Your task to perform on an android device: toggle javascript in the chrome app Image 0: 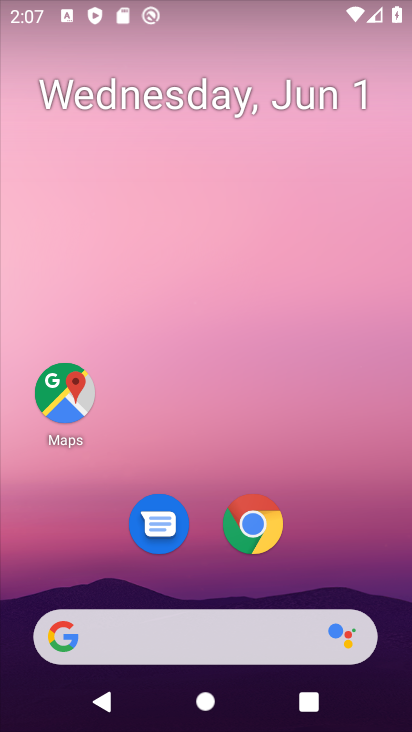
Step 0: click (265, 530)
Your task to perform on an android device: toggle javascript in the chrome app Image 1: 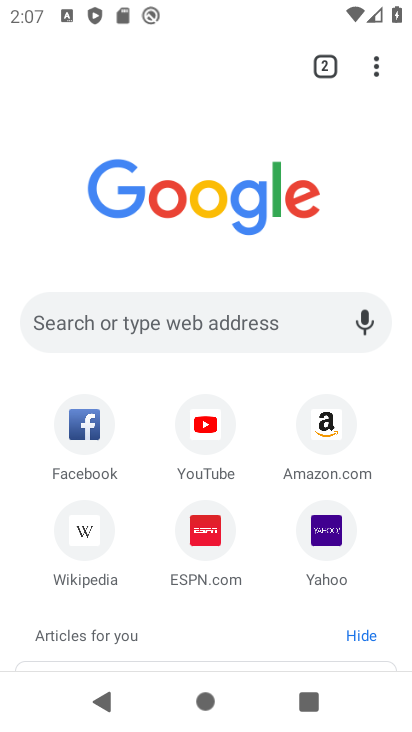
Step 1: click (368, 67)
Your task to perform on an android device: toggle javascript in the chrome app Image 2: 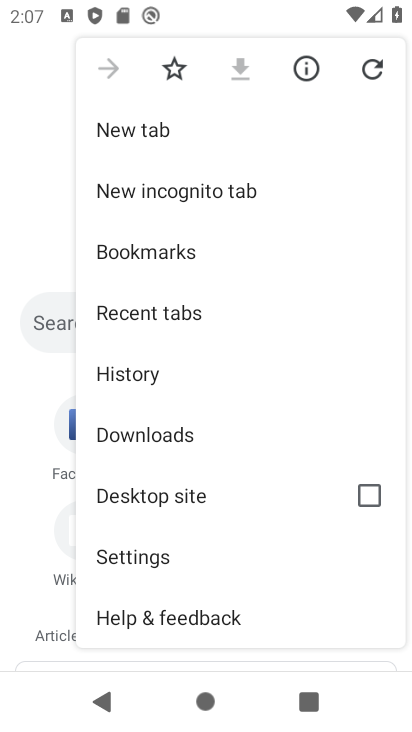
Step 2: click (203, 562)
Your task to perform on an android device: toggle javascript in the chrome app Image 3: 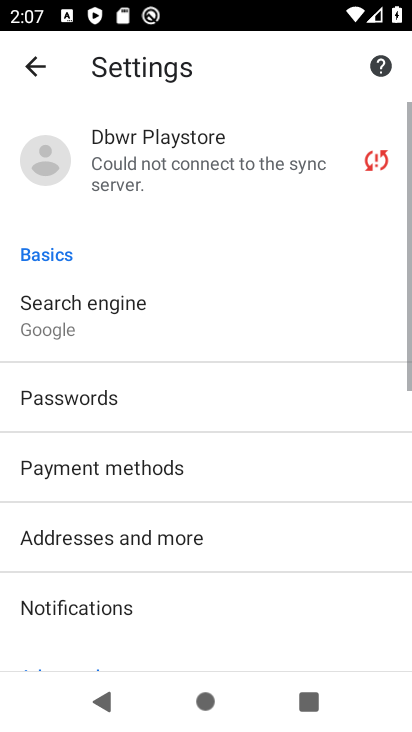
Step 3: drag from (279, 478) to (275, 178)
Your task to perform on an android device: toggle javascript in the chrome app Image 4: 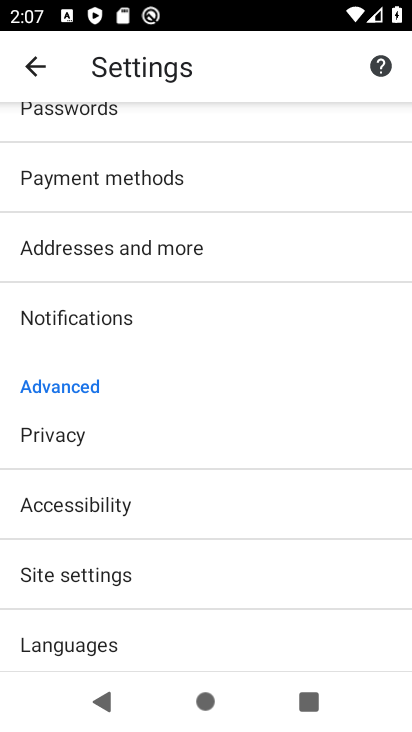
Step 4: click (227, 582)
Your task to perform on an android device: toggle javascript in the chrome app Image 5: 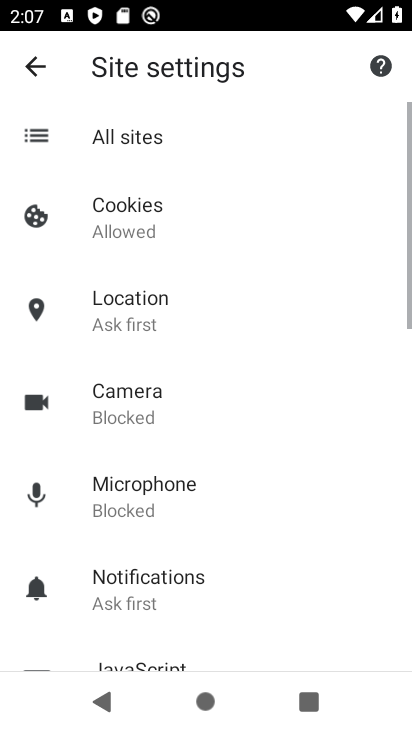
Step 5: drag from (267, 607) to (269, 329)
Your task to perform on an android device: toggle javascript in the chrome app Image 6: 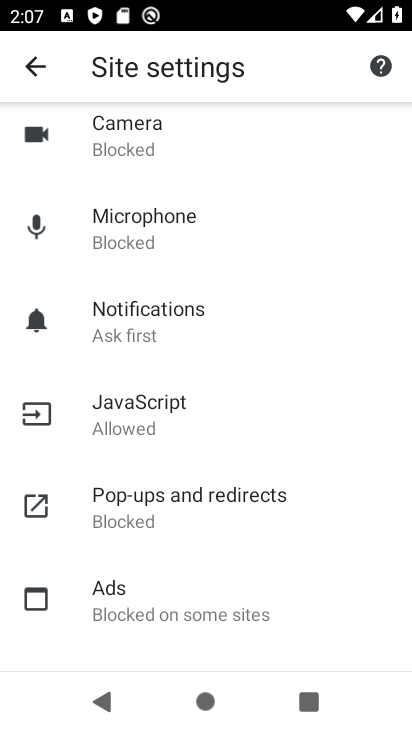
Step 6: click (243, 418)
Your task to perform on an android device: toggle javascript in the chrome app Image 7: 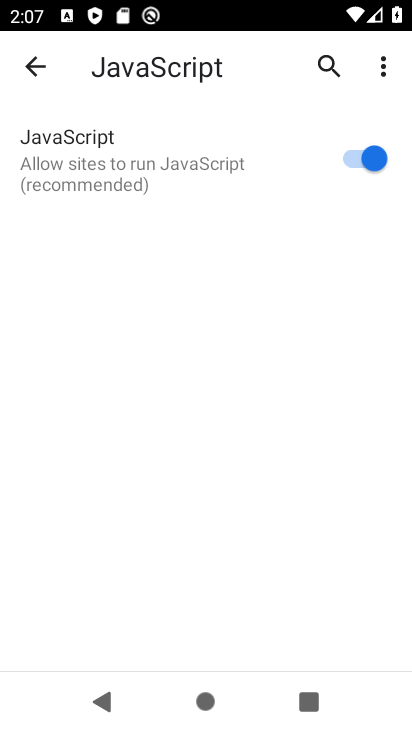
Step 7: click (366, 145)
Your task to perform on an android device: toggle javascript in the chrome app Image 8: 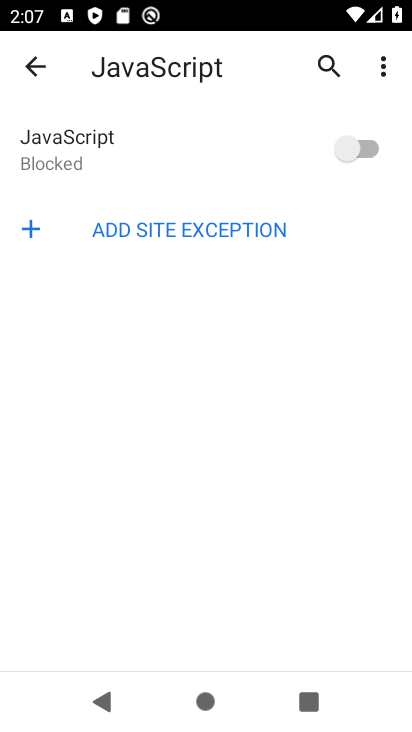
Step 8: task complete